Your task to perform on an android device: turn off data saver in the chrome app Image 0: 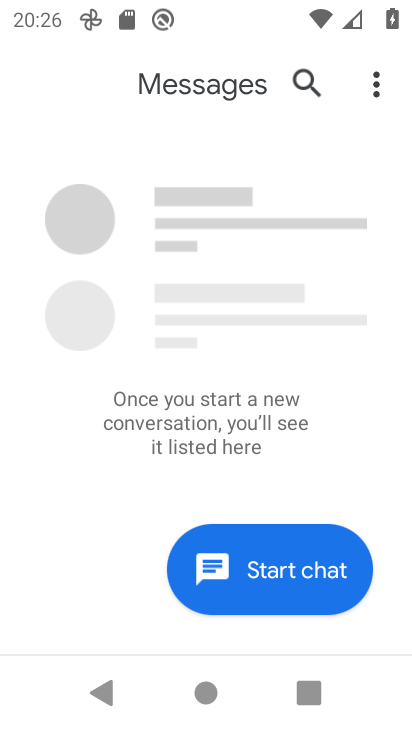
Step 0: task complete